Your task to perform on an android device: turn off notifications settings in the gmail app Image 0: 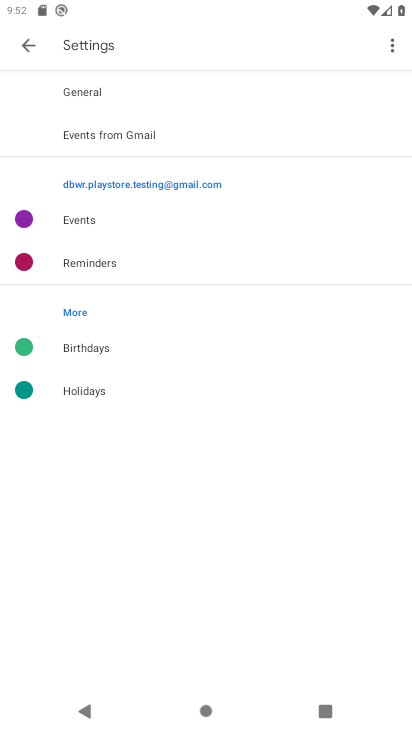
Step 0: drag from (272, 698) to (186, 204)
Your task to perform on an android device: turn off notifications settings in the gmail app Image 1: 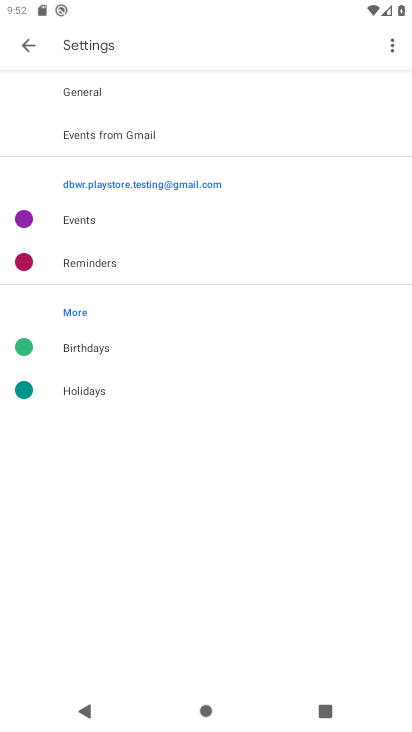
Step 1: press back button
Your task to perform on an android device: turn off notifications settings in the gmail app Image 2: 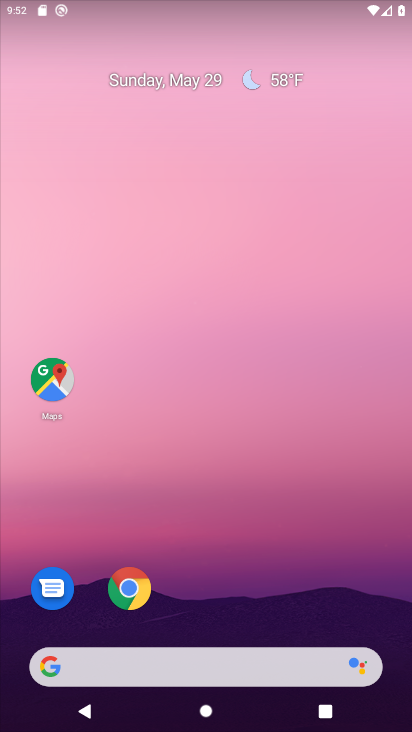
Step 2: drag from (236, 667) to (167, 246)
Your task to perform on an android device: turn off notifications settings in the gmail app Image 3: 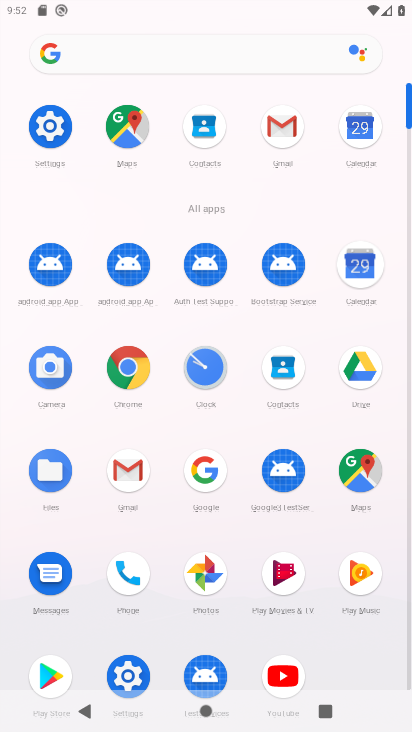
Step 3: click (284, 121)
Your task to perform on an android device: turn off notifications settings in the gmail app Image 4: 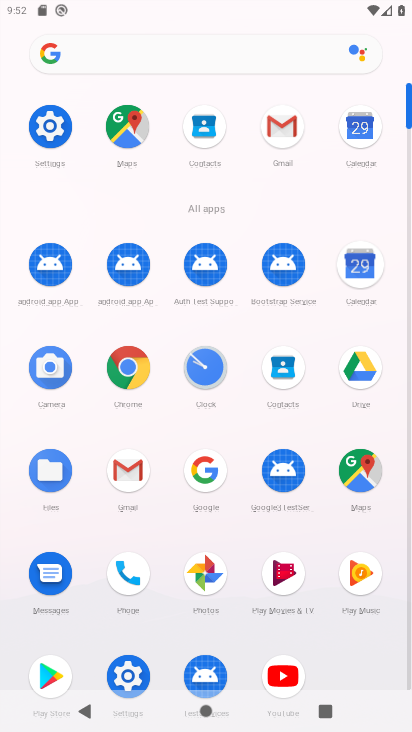
Step 4: click (285, 120)
Your task to perform on an android device: turn off notifications settings in the gmail app Image 5: 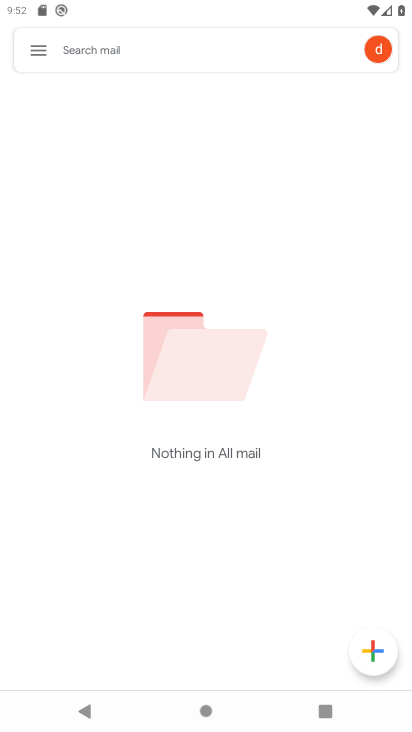
Step 5: click (34, 53)
Your task to perform on an android device: turn off notifications settings in the gmail app Image 6: 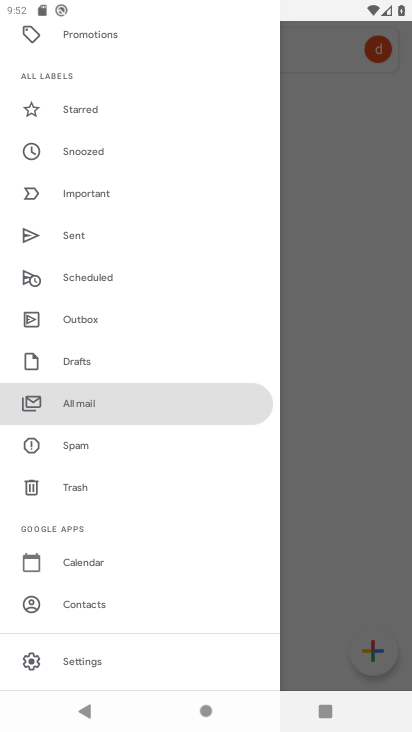
Step 6: click (78, 659)
Your task to perform on an android device: turn off notifications settings in the gmail app Image 7: 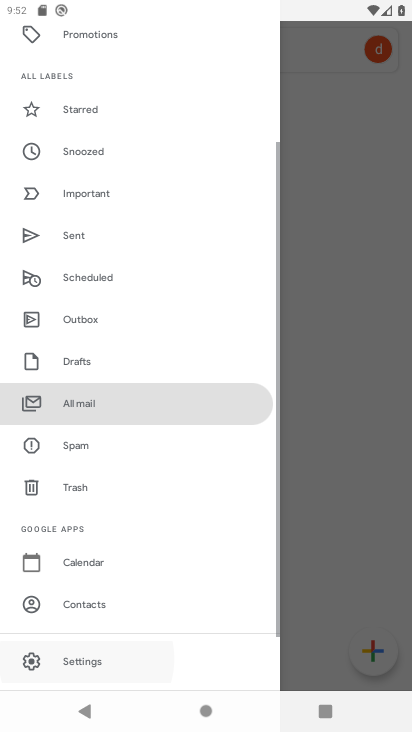
Step 7: click (80, 656)
Your task to perform on an android device: turn off notifications settings in the gmail app Image 8: 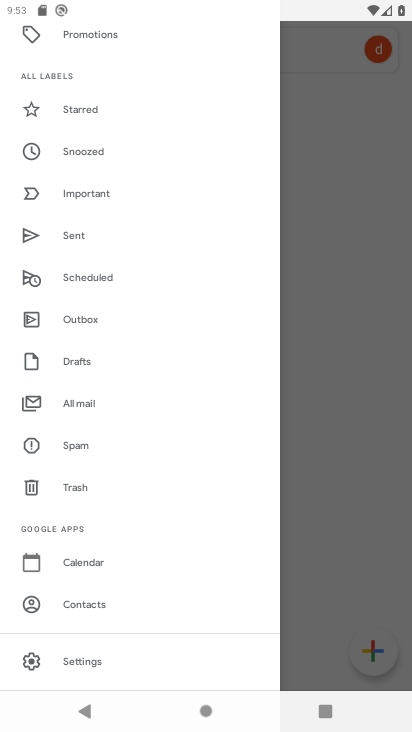
Step 8: click (80, 660)
Your task to perform on an android device: turn off notifications settings in the gmail app Image 9: 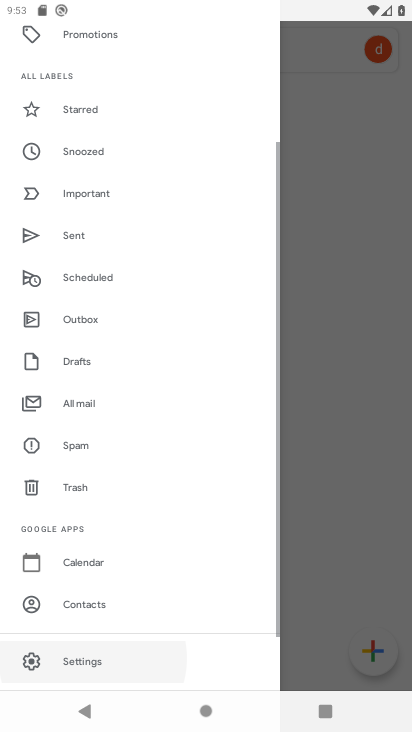
Step 9: click (86, 656)
Your task to perform on an android device: turn off notifications settings in the gmail app Image 10: 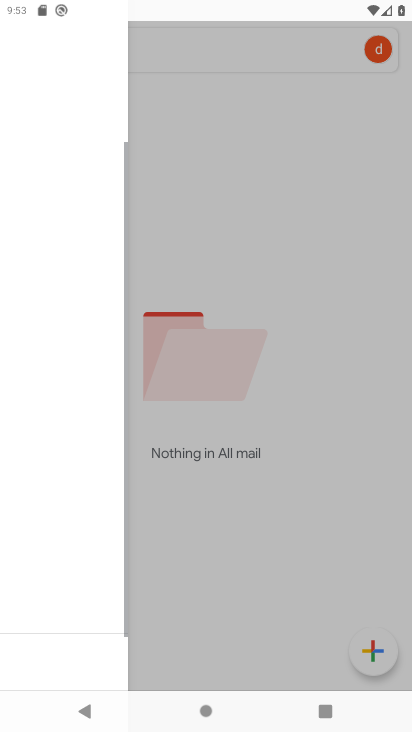
Step 10: click (90, 653)
Your task to perform on an android device: turn off notifications settings in the gmail app Image 11: 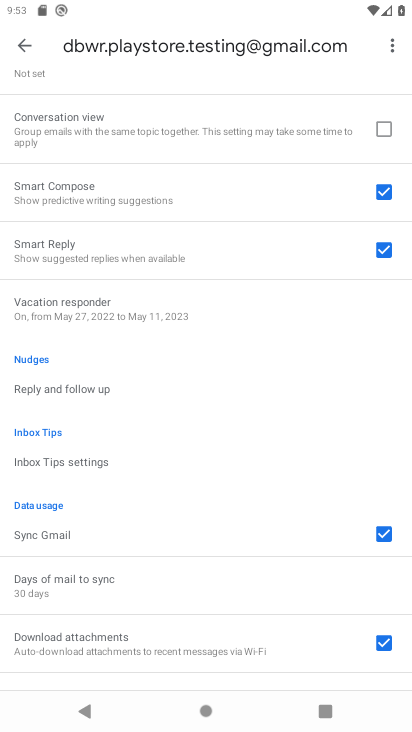
Step 11: drag from (63, 264) to (105, 563)
Your task to perform on an android device: turn off notifications settings in the gmail app Image 12: 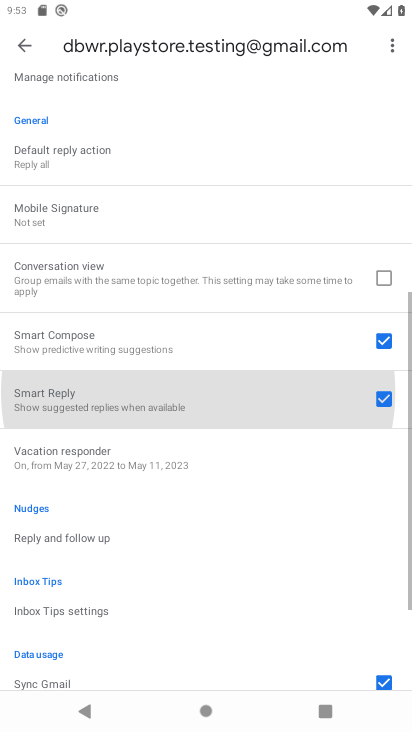
Step 12: drag from (126, 271) to (165, 546)
Your task to perform on an android device: turn off notifications settings in the gmail app Image 13: 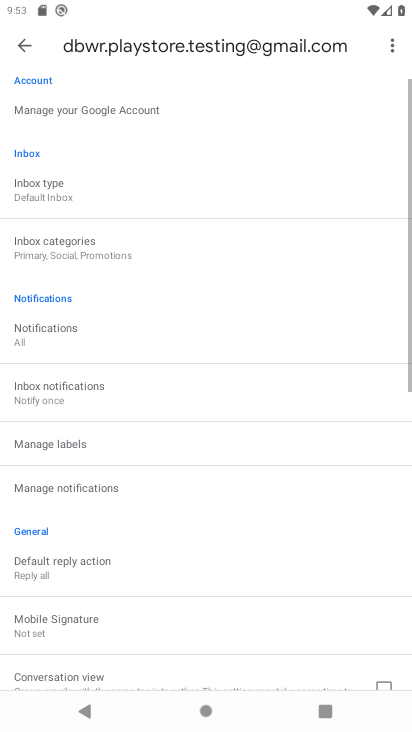
Step 13: drag from (89, 231) to (147, 657)
Your task to perform on an android device: turn off notifications settings in the gmail app Image 14: 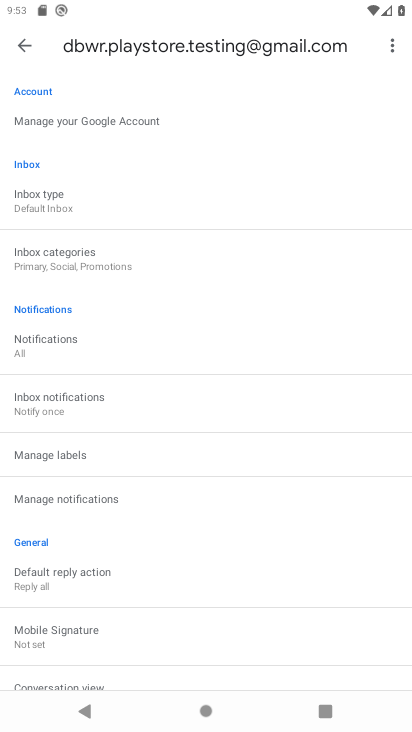
Step 14: click (44, 340)
Your task to perform on an android device: turn off notifications settings in the gmail app Image 15: 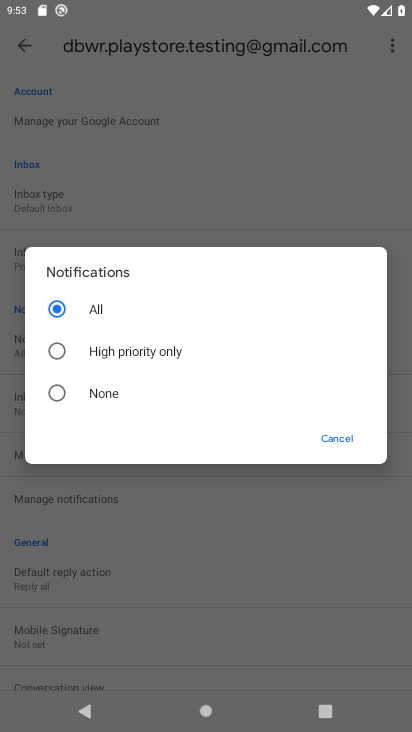
Step 15: click (59, 385)
Your task to perform on an android device: turn off notifications settings in the gmail app Image 16: 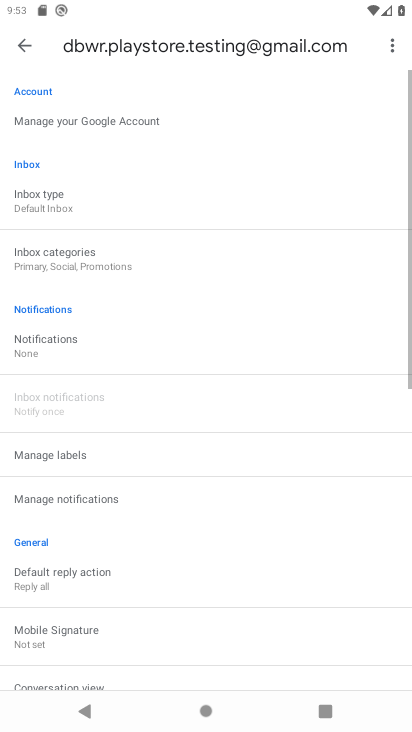
Step 16: click (55, 390)
Your task to perform on an android device: turn off notifications settings in the gmail app Image 17: 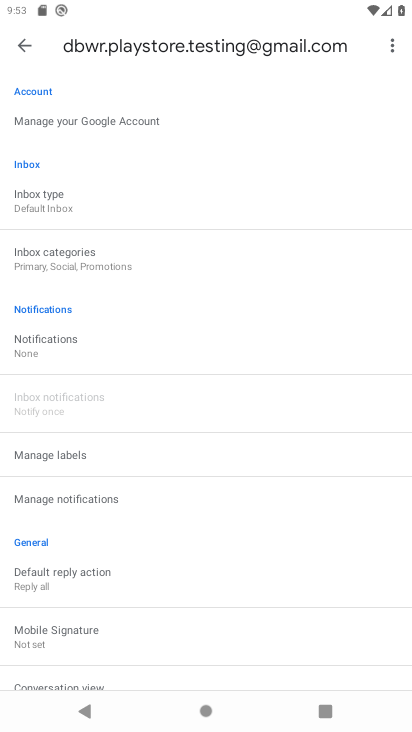
Step 17: task complete